Your task to perform on an android device: move a message to another label in the gmail app Image 0: 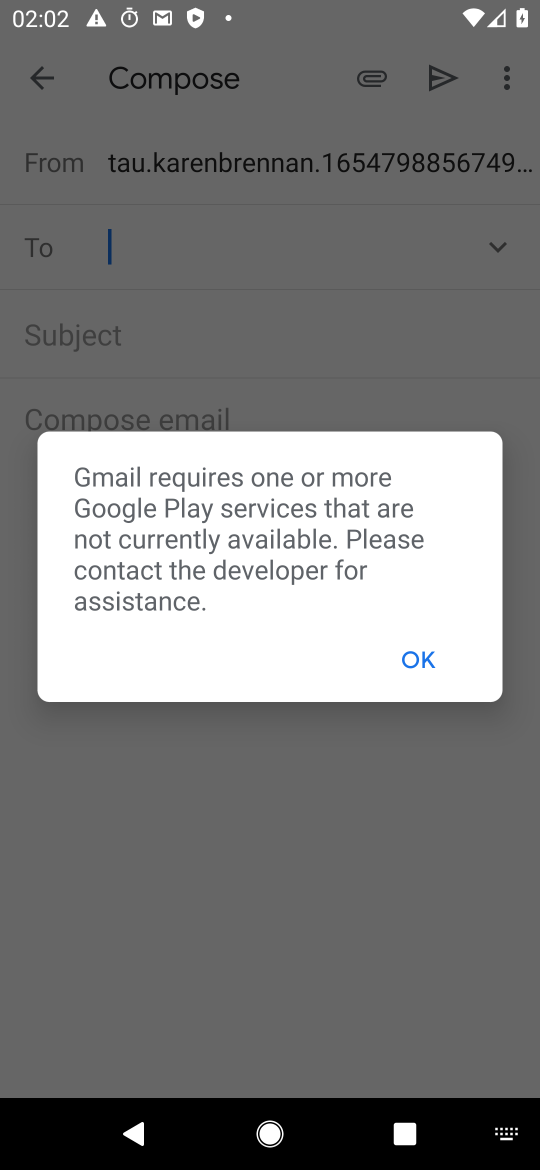
Step 0: press home button
Your task to perform on an android device: move a message to another label in the gmail app Image 1: 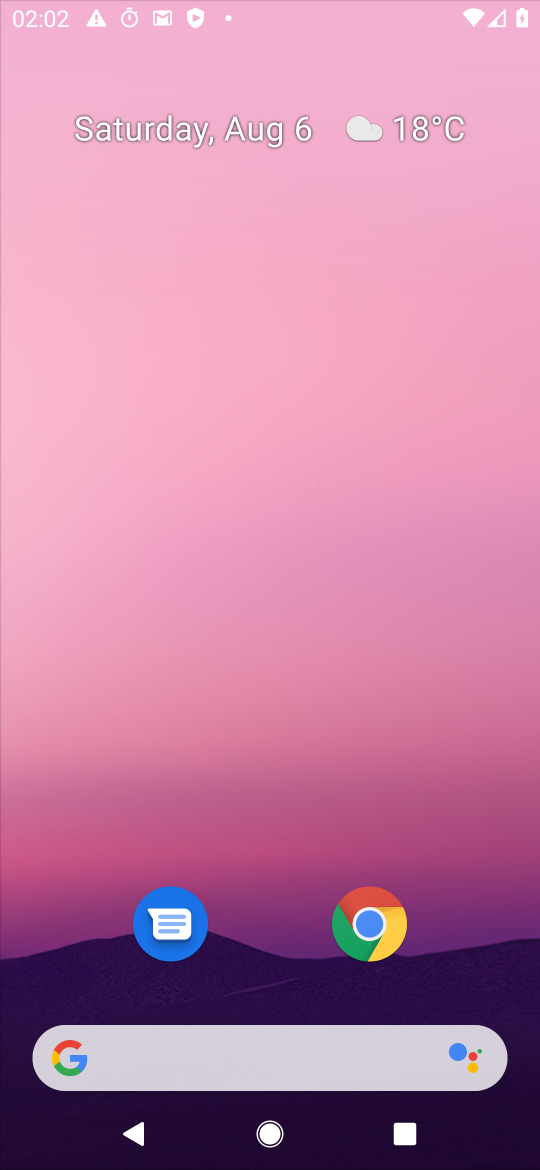
Step 1: drag from (224, 1038) to (274, 57)
Your task to perform on an android device: move a message to another label in the gmail app Image 2: 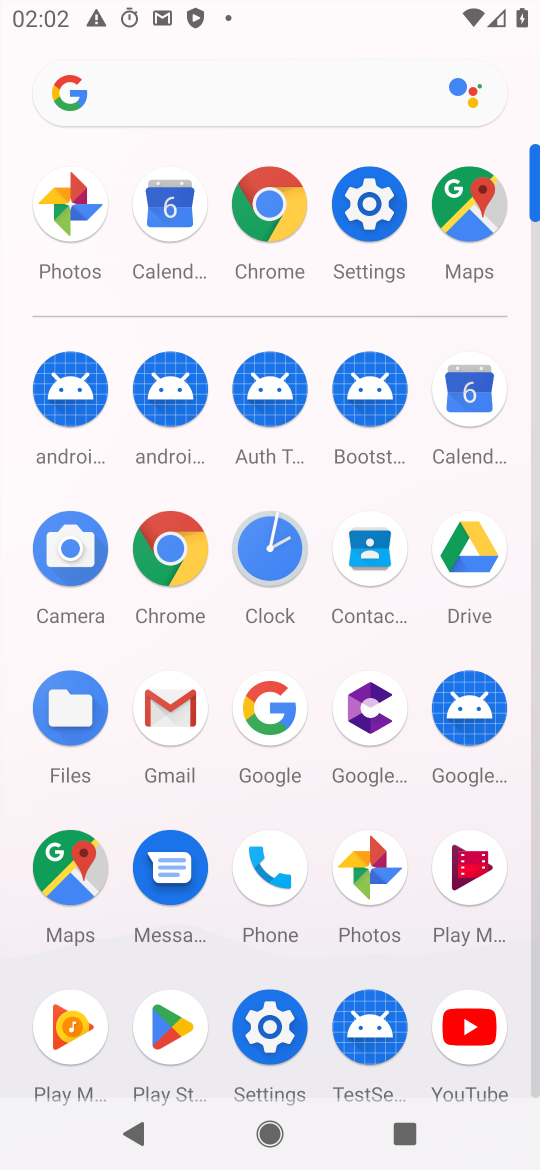
Step 2: click (157, 723)
Your task to perform on an android device: move a message to another label in the gmail app Image 3: 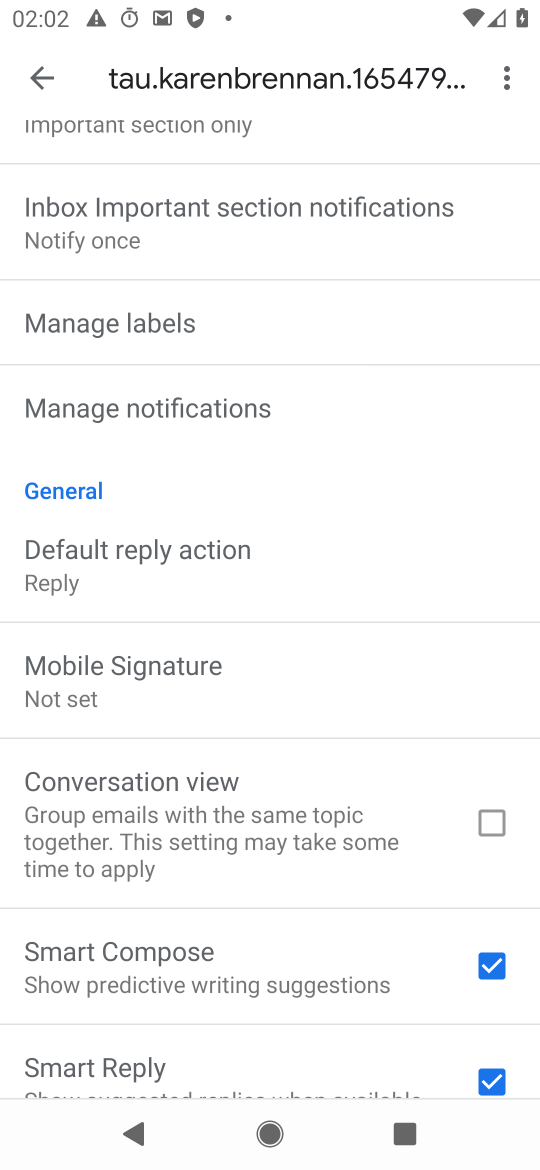
Step 3: press back button
Your task to perform on an android device: move a message to another label in the gmail app Image 4: 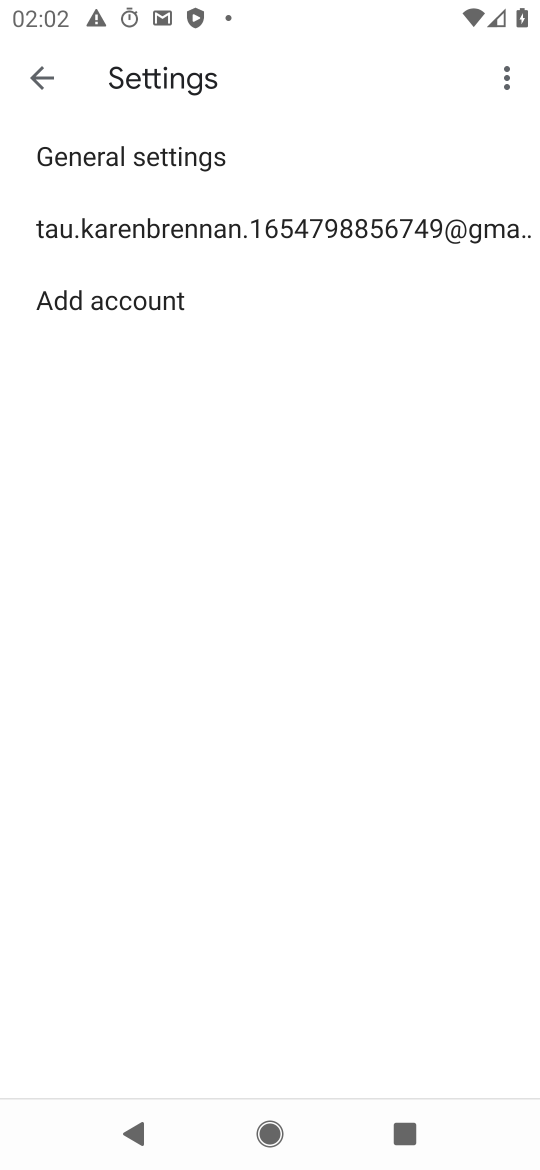
Step 4: press back button
Your task to perform on an android device: move a message to another label in the gmail app Image 5: 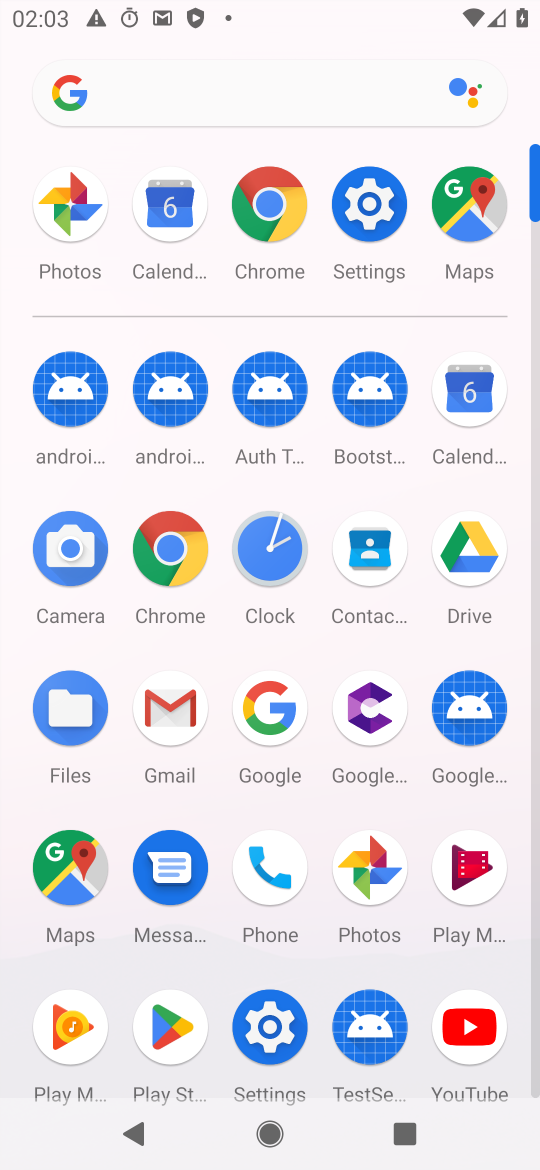
Step 5: click (178, 707)
Your task to perform on an android device: move a message to another label in the gmail app Image 6: 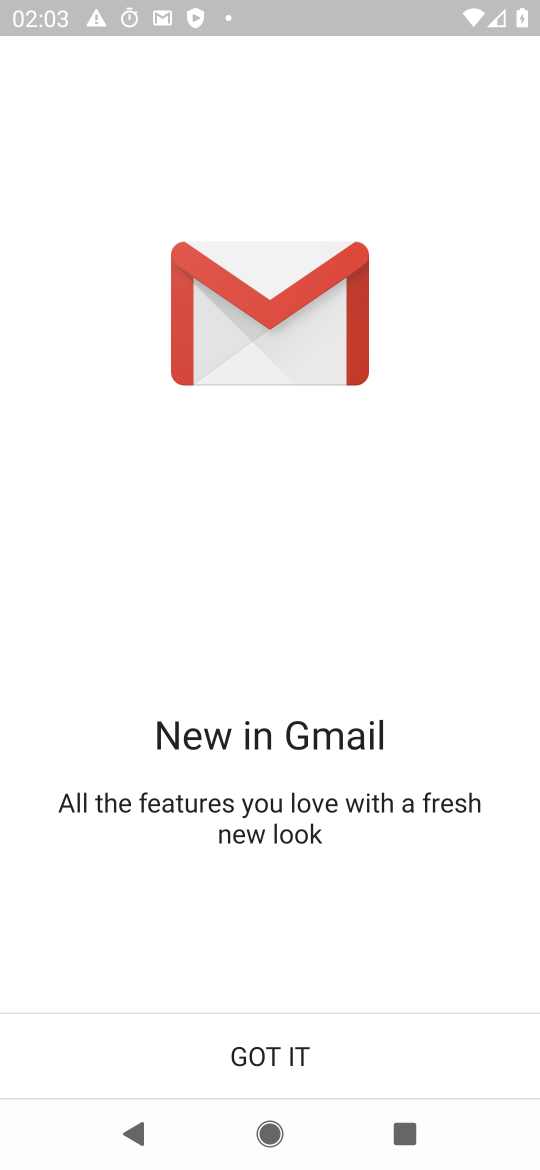
Step 6: click (245, 1075)
Your task to perform on an android device: move a message to another label in the gmail app Image 7: 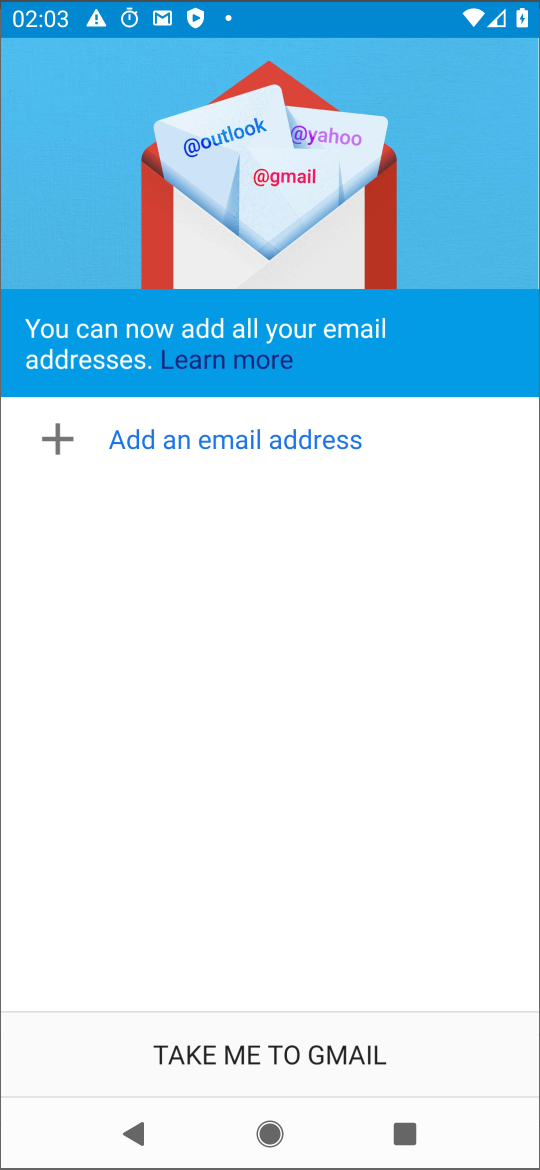
Step 7: click (245, 1075)
Your task to perform on an android device: move a message to another label in the gmail app Image 8: 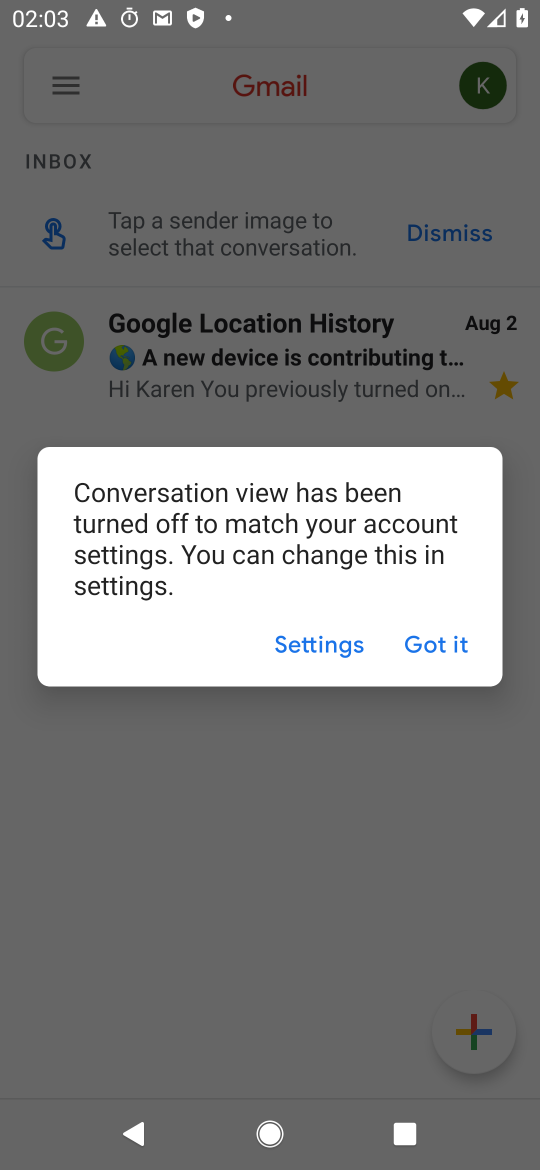
Step 8: click (450, 644)
Your task to perform on an android device: move a message to another label in the gmail app Image 9: 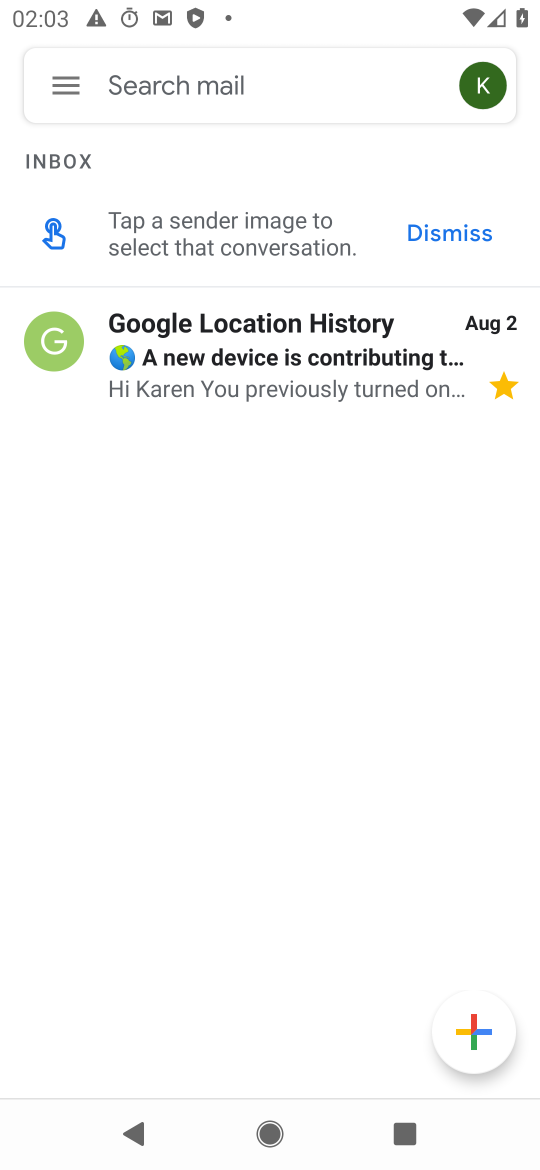
Step 9: click (381, 388)
Your task to perform on an android device: move a message to another label in the gmail app Image 10: 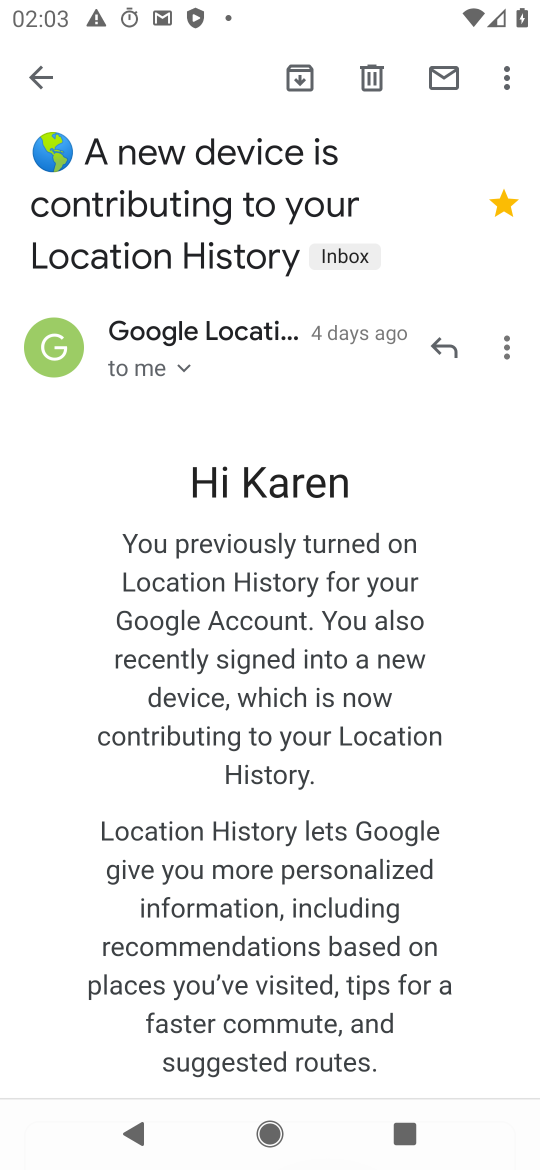
Step 10: click (499, 68)
Your task to perform on an android device: move a message to another label in the gmail app Image 11: 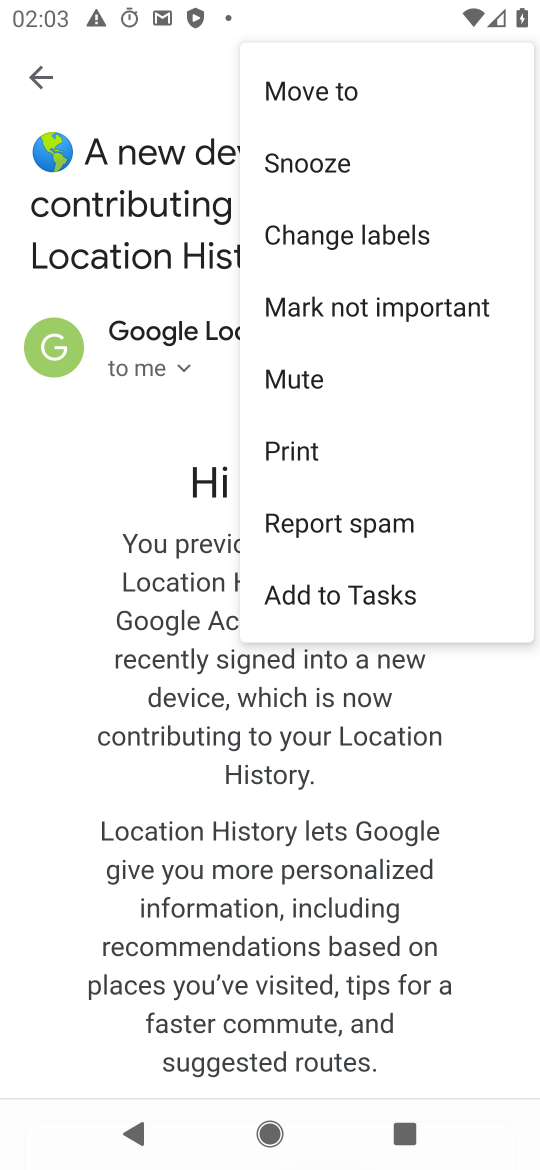
Step 11: click (367, 244)
Your task to perform on an android device: move a message to another label in the gmail app Image 12: 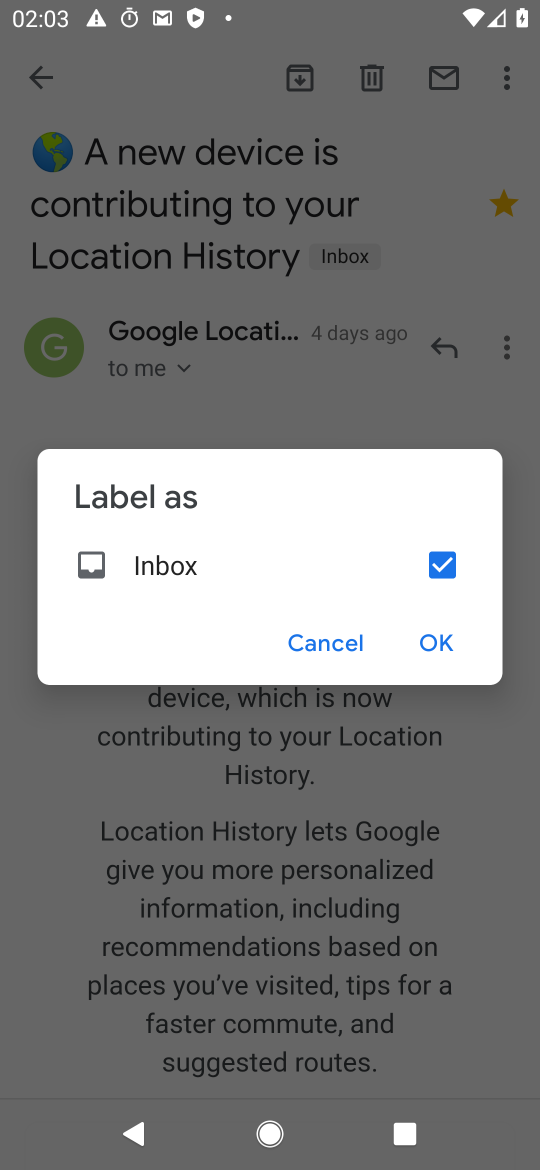
Step 12: click (436, 636)
Your task to perform on an android device: move a message to another label in the gmail app Image 13: 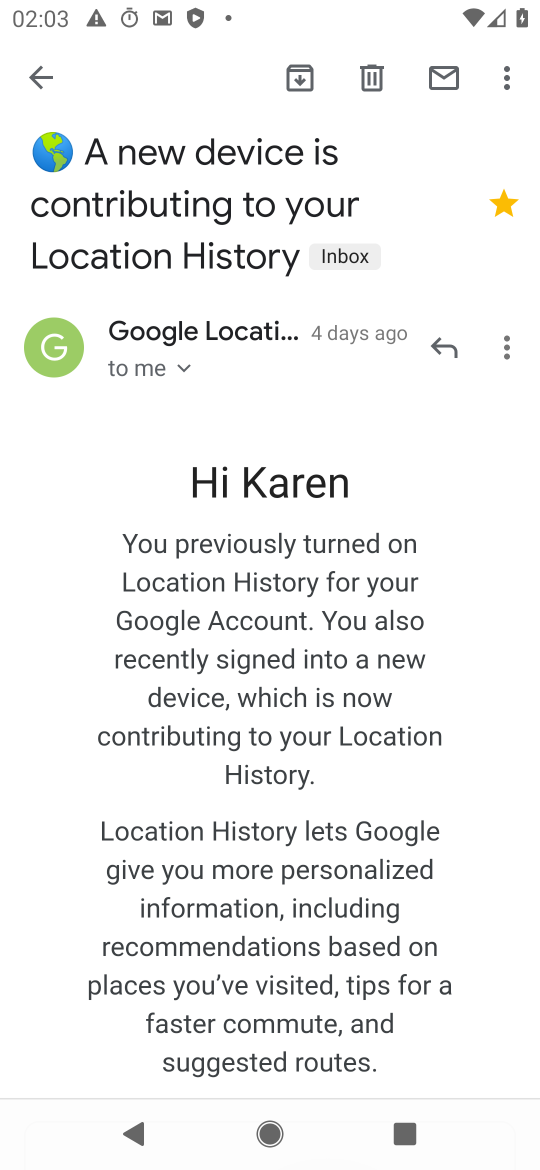
Step 13: task complete